Your task to perform on an android device: open app "Duolingo: language lessons" (install if not already installed) and go to login screen Image 0: 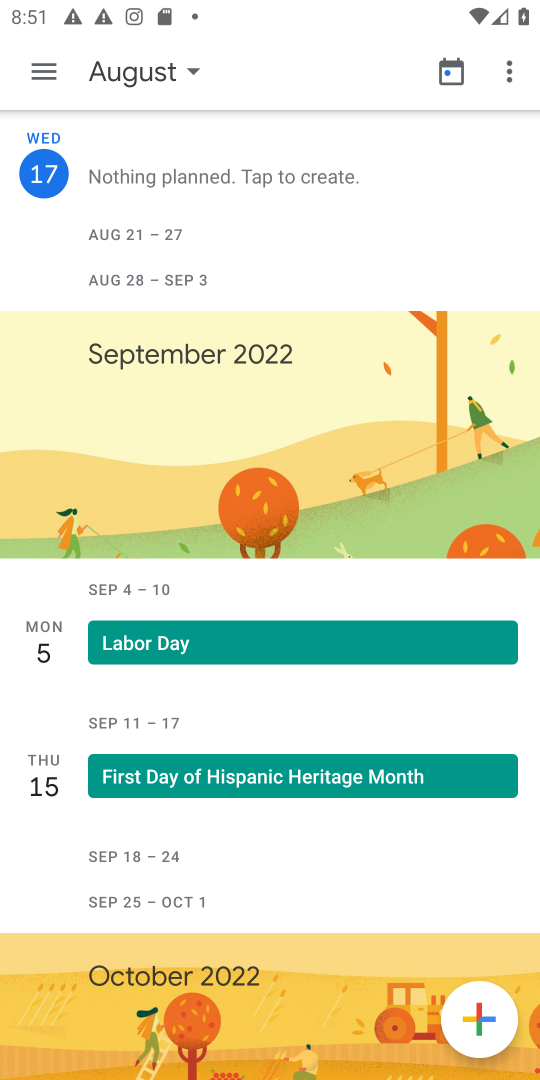
Step 0: press home button
Your task to perform on an android device: open app "Duolingo: language lessons" (install if not already installed) and go to login screen Image 1: 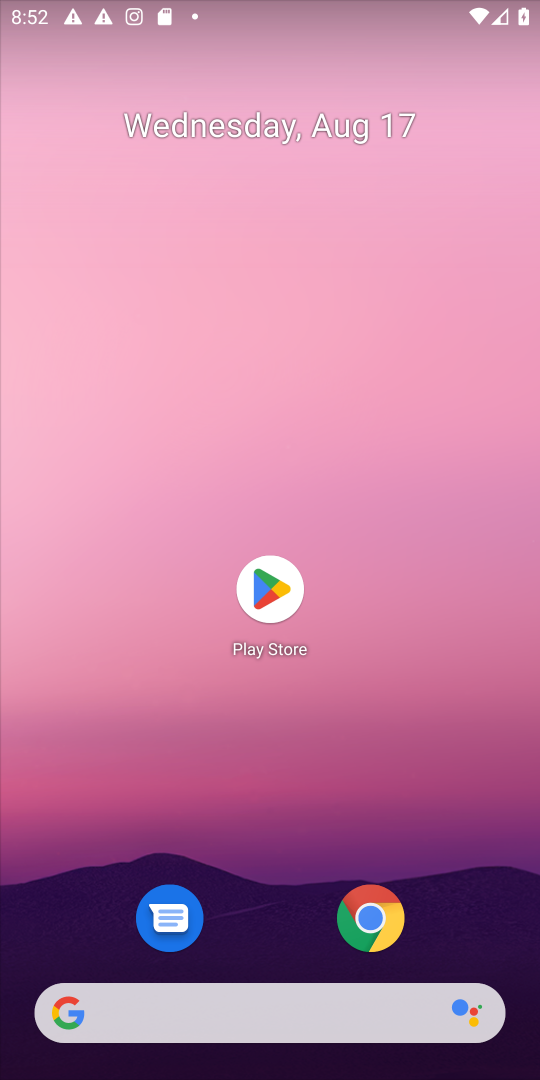
Step 1: click (276, 588)
Your task to perform on an android device: open app "Duolingo: language lessons" (install if not already installed) and go to login screen Image 2: 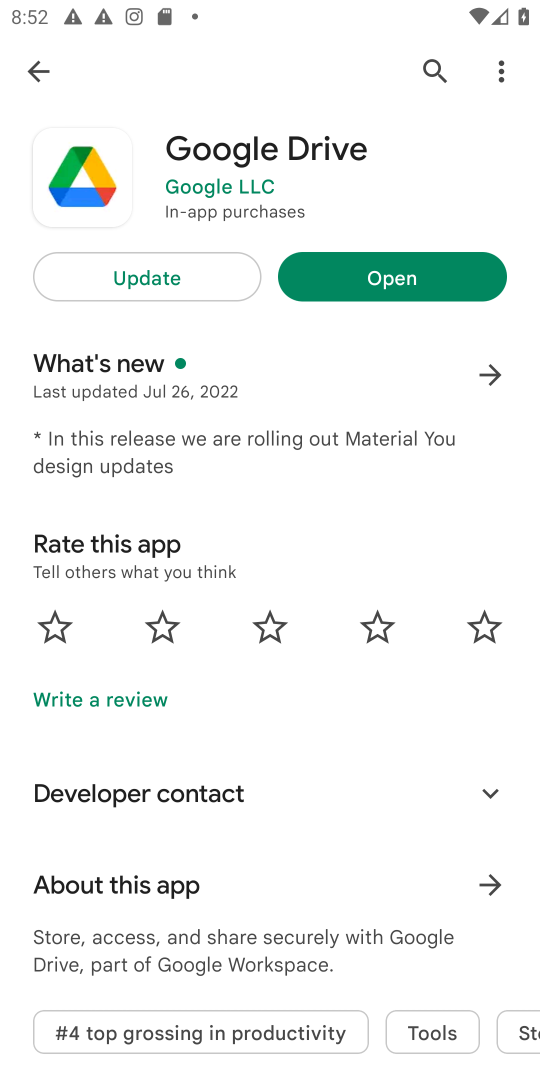
Step 2: click (428, 62)
Your task to perform on an android device: open app "Duolingo: language lessons" (install if not already installed) and go to login screen Image 3: 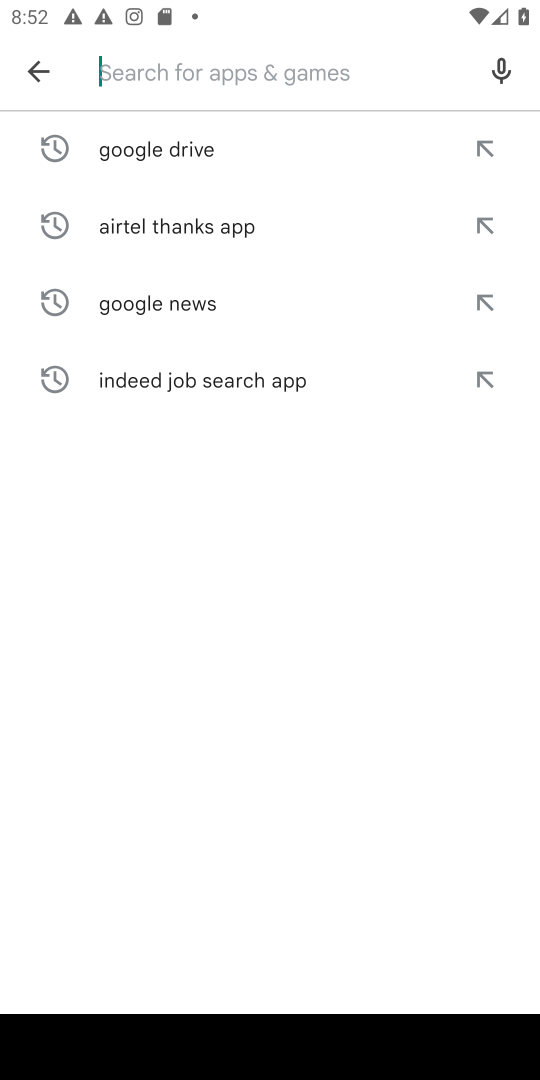
Step 3: type "Duolingo: language lessons"
Your task to perform on an android device: open app "Duolingo: language lessons" (install if not already installed) and go to login screen Image 4: 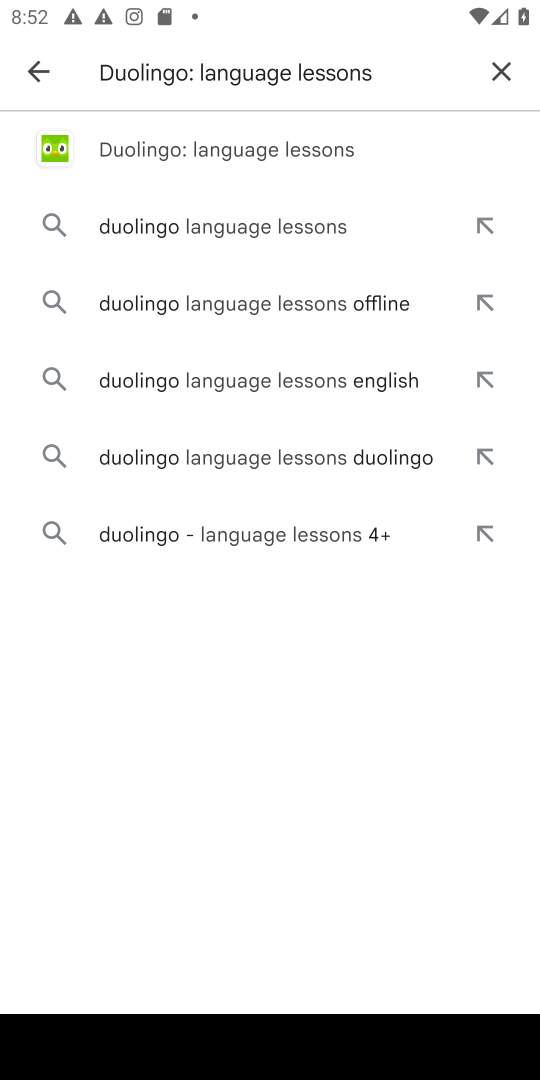
Step 4: click (248, 152)
Your task to perform on an android device: open app "Duolingo: language lessons" (install if not already installed) and go to login screen Image 5: 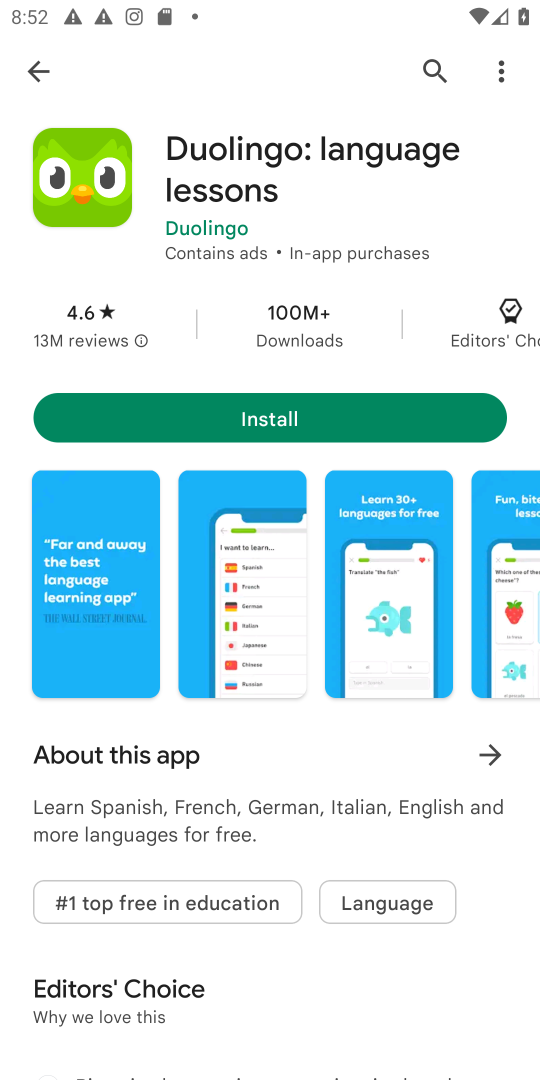
Step 5: click (280, 418)
Your task to perform on an android device: open app "Duolingo: language lessons" (install if not already installed) and go to login screen Image 6: 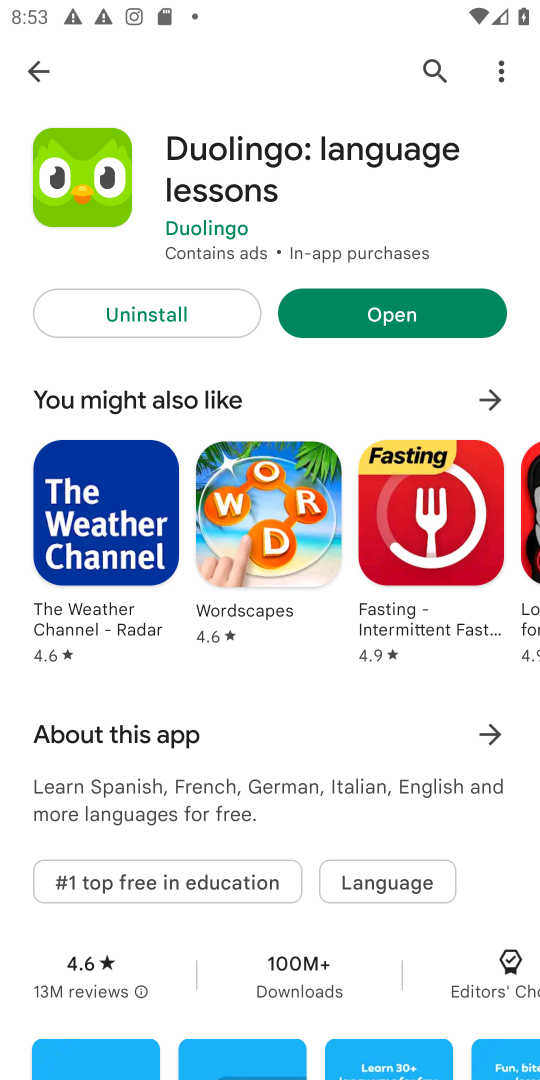
Step 6: click (452, 317)
Your task to perform on an android device: open app "Duolingo: language lessons" (install if not already installed) and go to login screen Image 7: 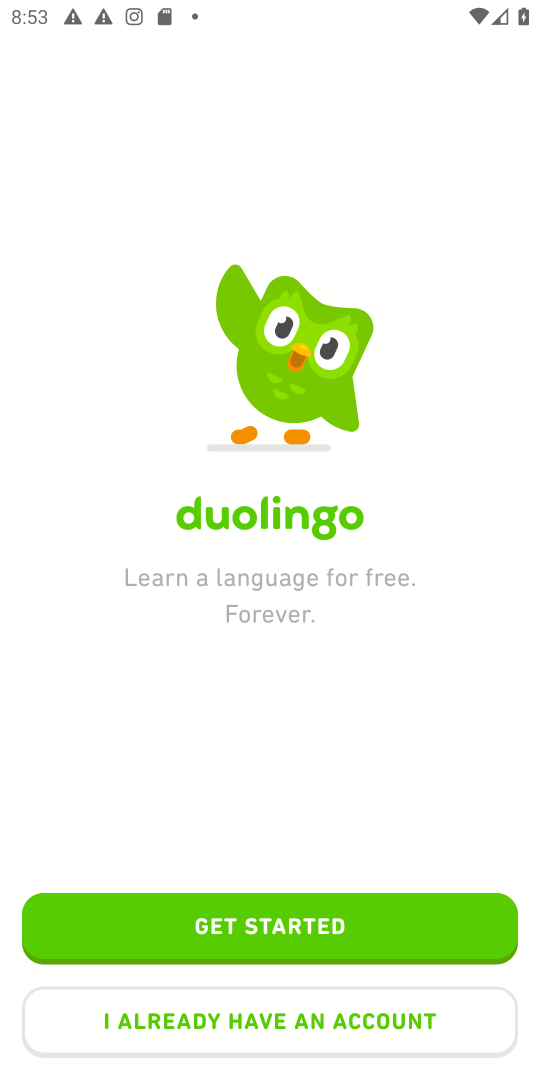
Step 7: click (236, 1008)
Your task to perform on an android device: open app "Duolingo: language lessons" (install if not already installed) and go to login screen Image 8: 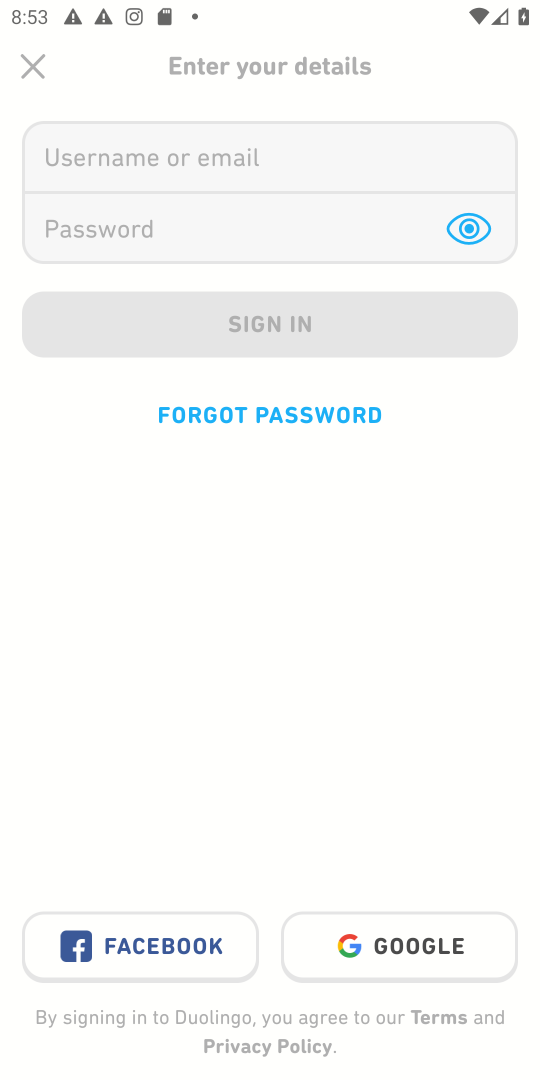
Step 8: task complete